Your task to perform on an android device: Open settings Image 0: 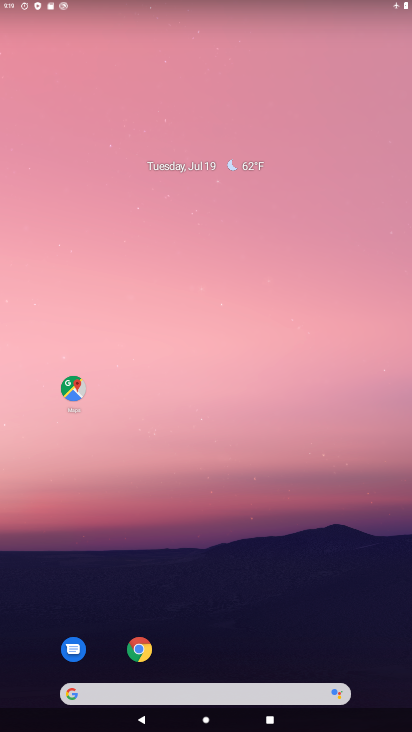
Step 0: drag from (282, 596) to (314, 0)
Your task to perform on an android device: Open settings Image 1: 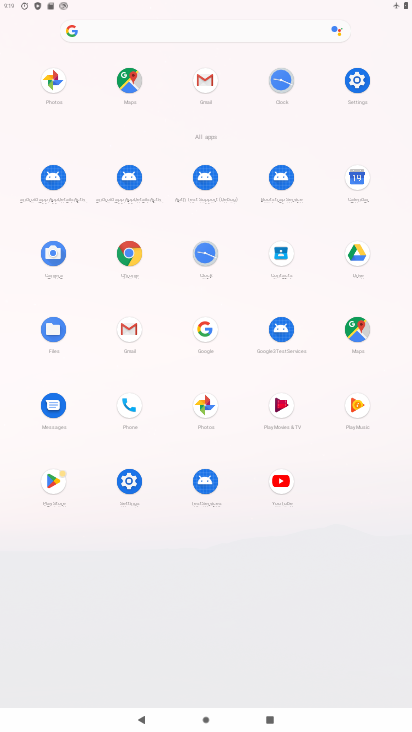
Step 1: click (359, 83)
Your task to perform on an android device: Open settings Image 2: 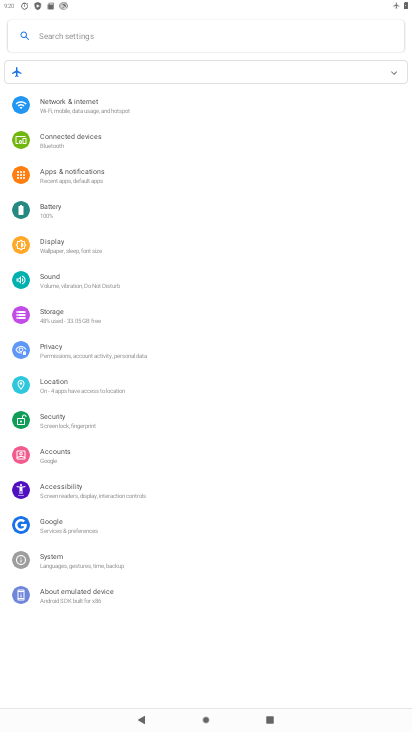
Step 2: task complete